Your task to perform on an android device: What's the weather going to be tomorrow? Image 0: 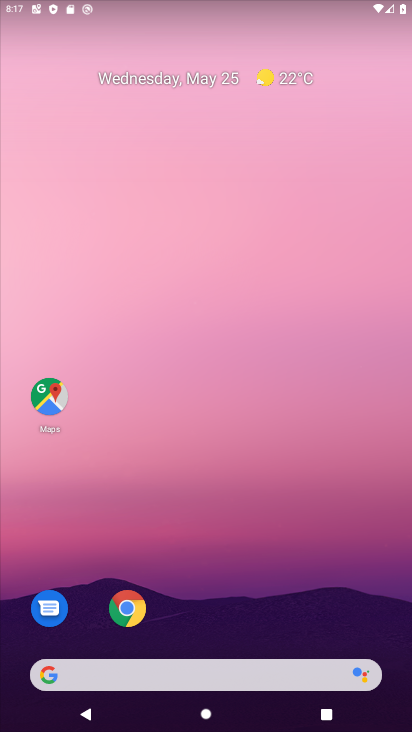
Step 0: drag from (260, 614) to (258, 114)
Your task to perform on an android device: What's the weather going to be tomorrow? Image 1: 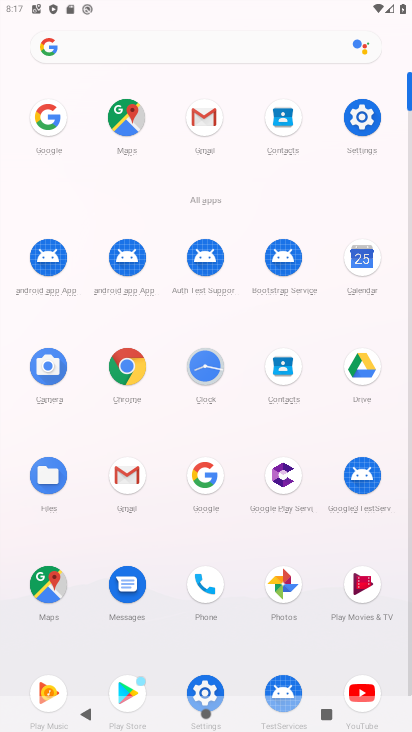
Step 1: click (201, 473)
Your task to perform on an android device: What's the weather going to be tomorrow? Image 2: 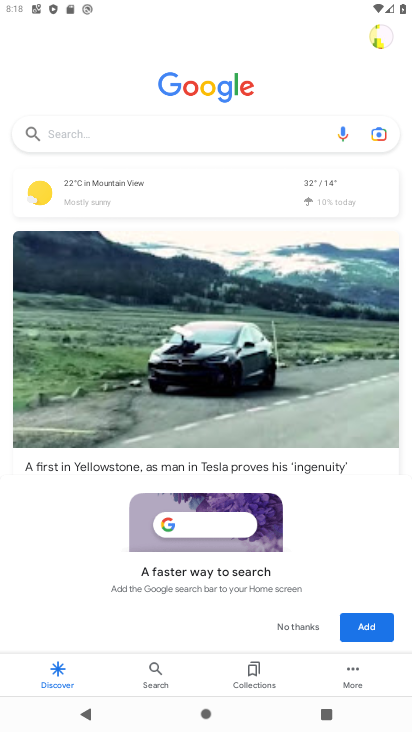
Step 2: click (270, 138)
Your task to perform on an android device: What's the weather going to be tomorrow? Image 3: 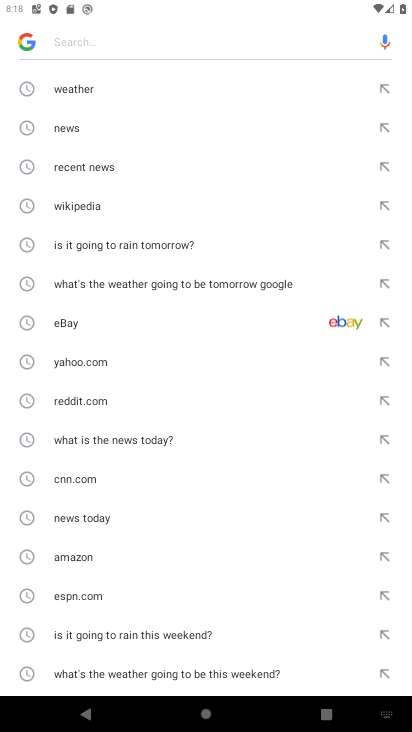
Step 3: click (256, 292)
Your task to perform on an android device: What's the weather going to be tomorrow? Image 4: 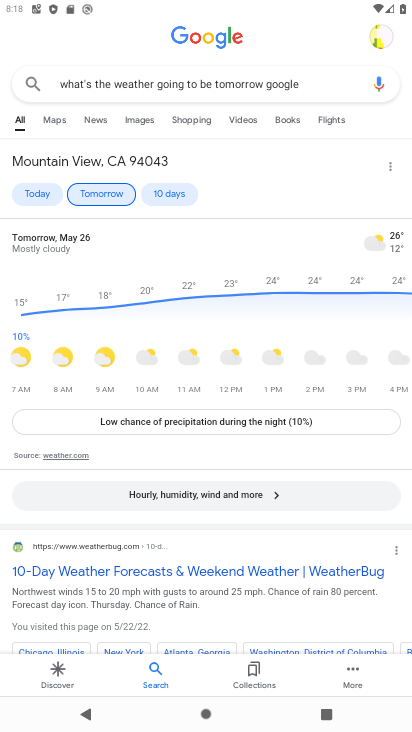
Step 4: task complete